Your task to perform on an android device: all mails in gmail Image 0: 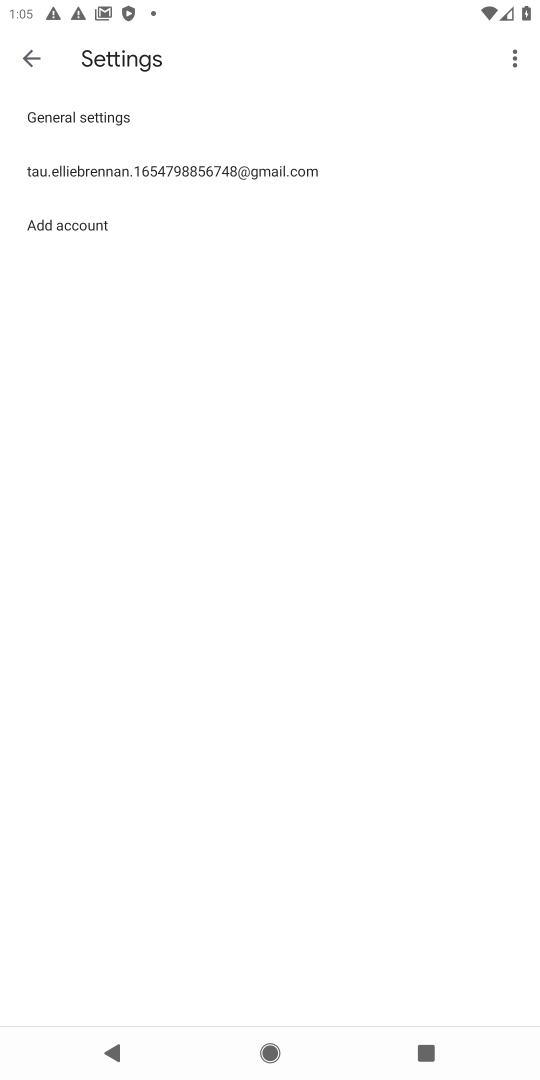
Step 0: press home button
Your task to perform on an android device: all mails in gmail Image 1: 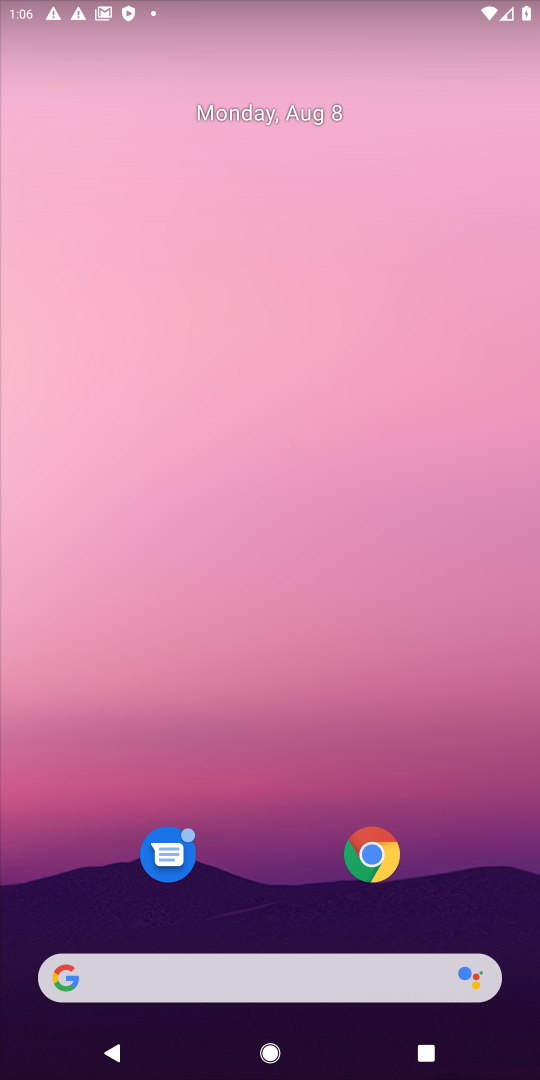
Step 1: drag from (137, 862) to (288, 427)
Your task to perform on an android device: all mails in gmail Image 2: 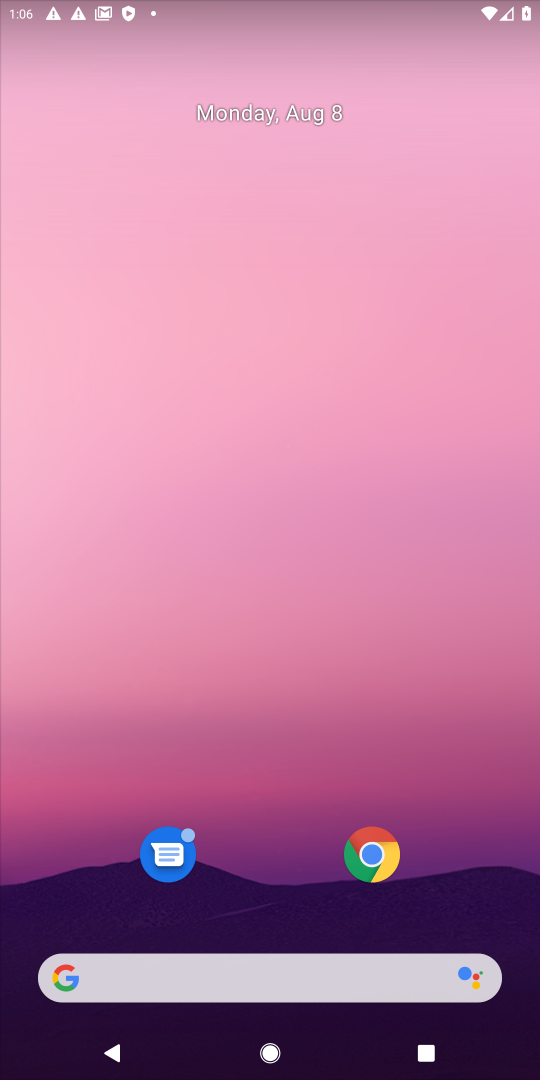
Step 2: drag from (163, 902) to (411, 25)
Your task to perform on an android device: all mails in gmail Image 3: 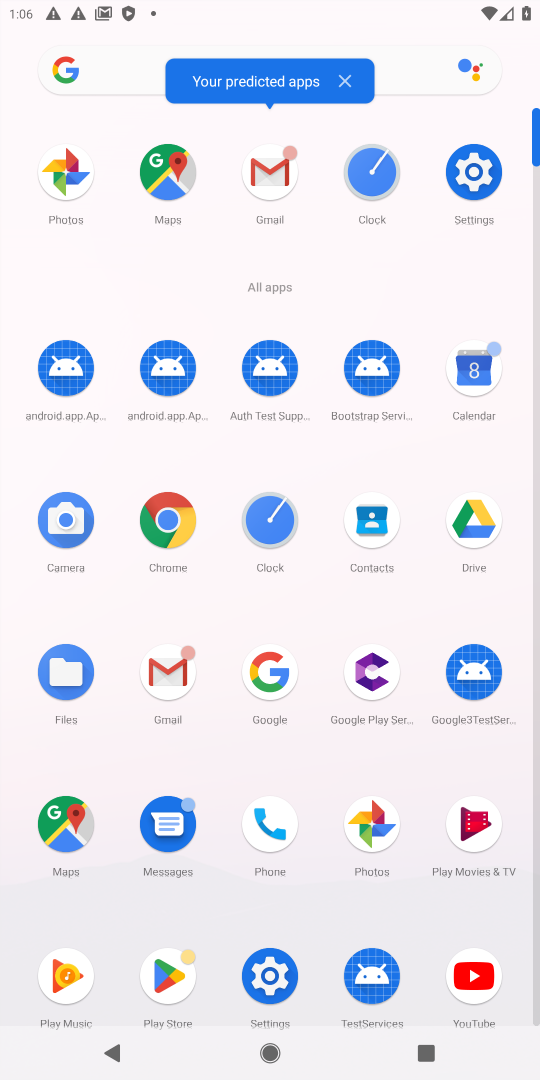
Step 3: click (187, 674)
Your task to perform on an android device: all mails in gmail Image 4: 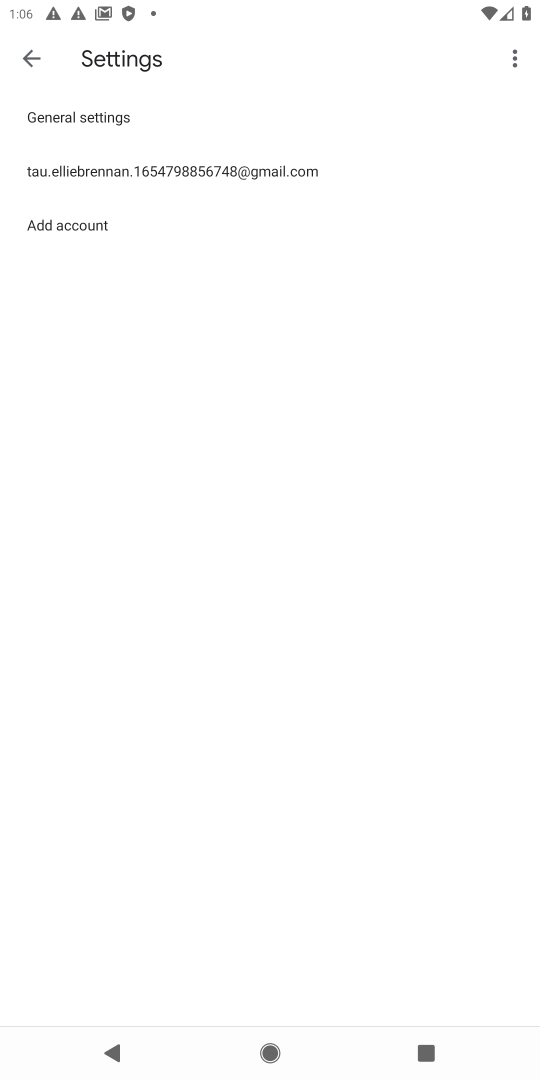
Step 4: click (28, 48)
Your task to perform on an android device: all mails in gmail Image 5: 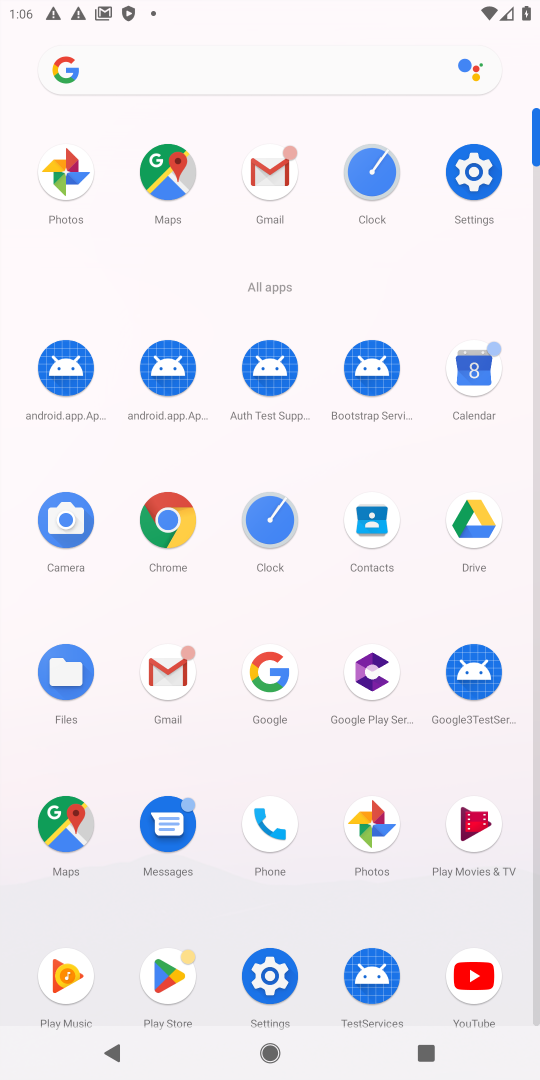
Step 5: click (169, 684)
Your task to perform on an android device: all mails in gmail Image 6: 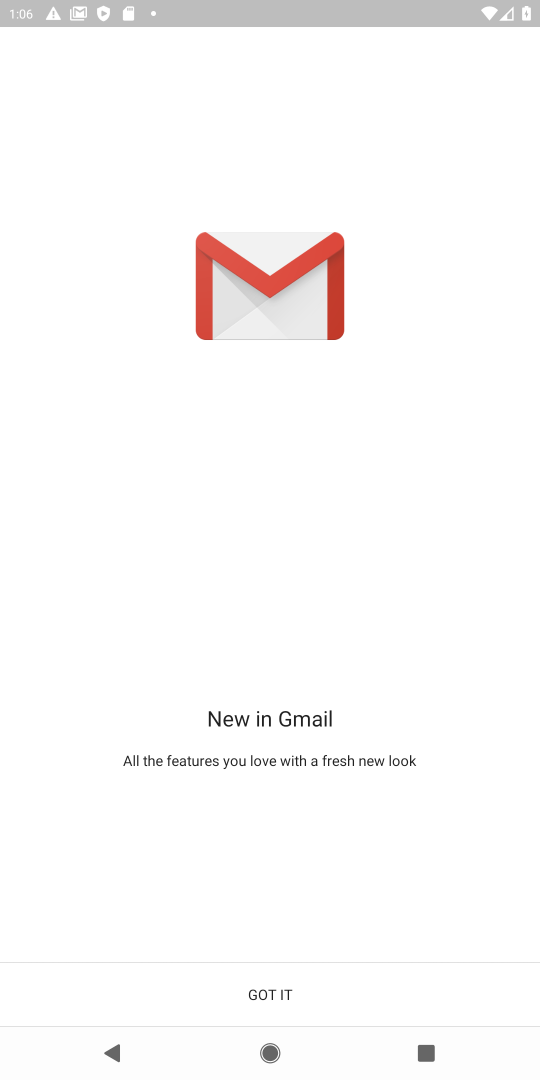
Step 6: click (228, 975)
Your task to perform on an android device: all mails in gmail Image 7: 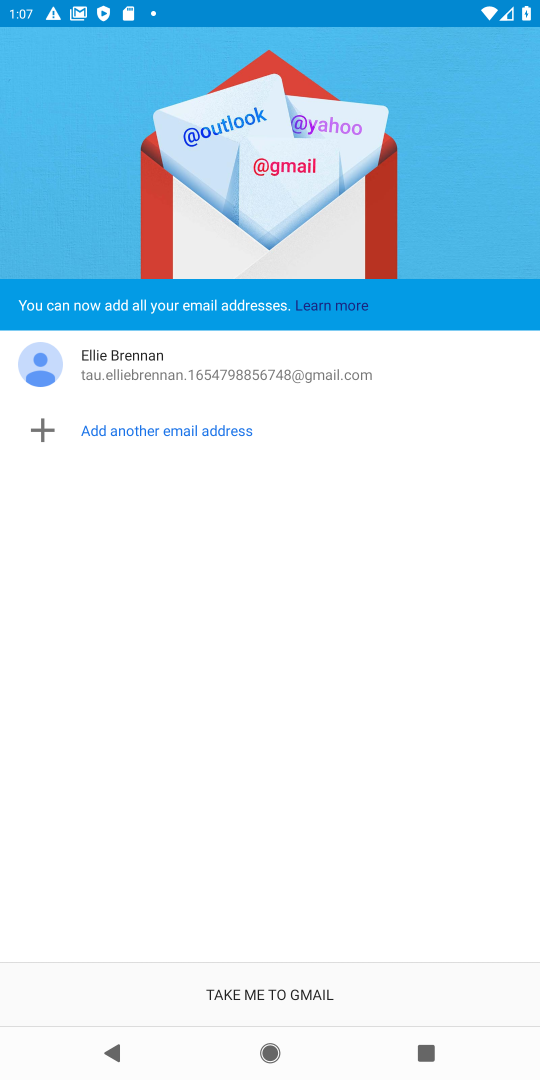
Step 7: click (271, 989)
Your task to perform on an android device: all mails in gmail Image 8: 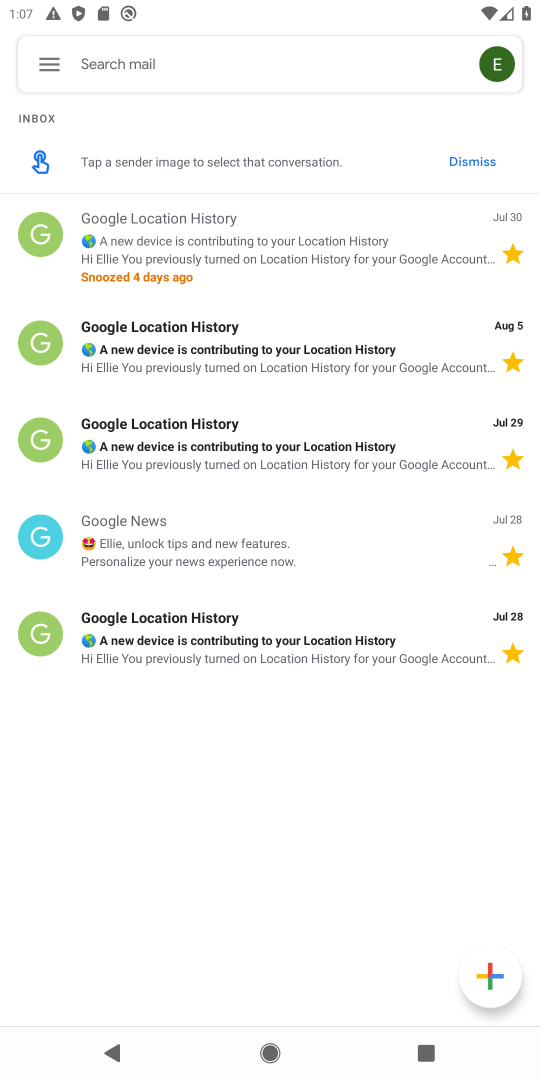
Step 8: click (32, 56)
Your task to perform on an android device: all mails in gmail Image 9: 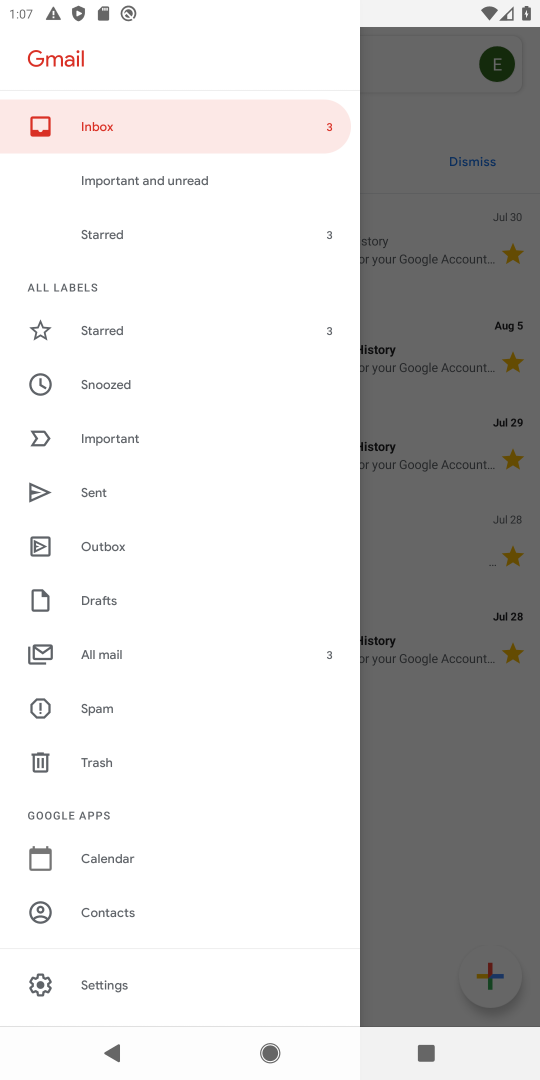
Step 9: click (105, 651)
Your task to perform on an android device: all mails in gmail Image 10: 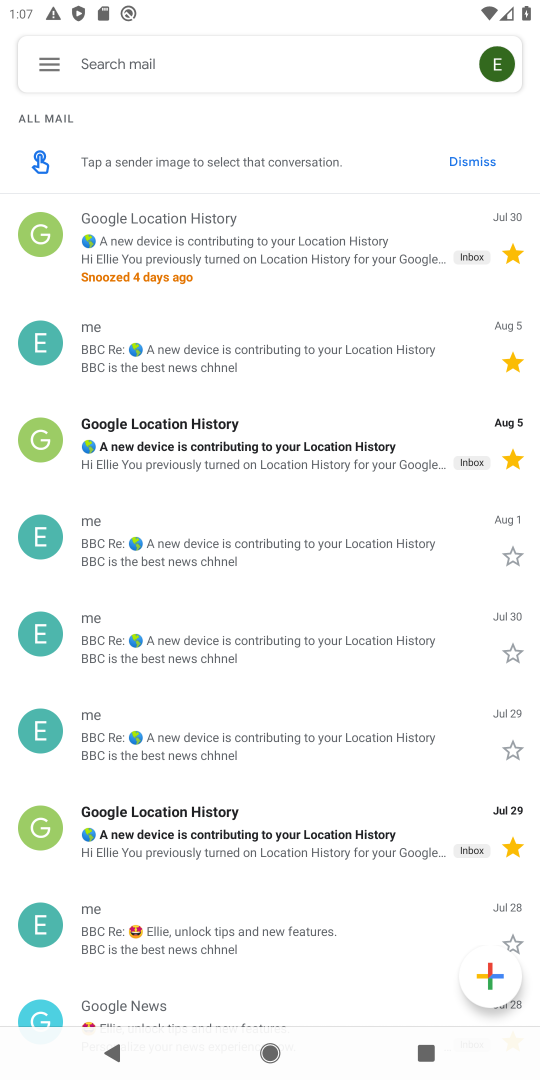
Step 10: task complete